Your task to perform on an android device: Go to display settings Image 0: 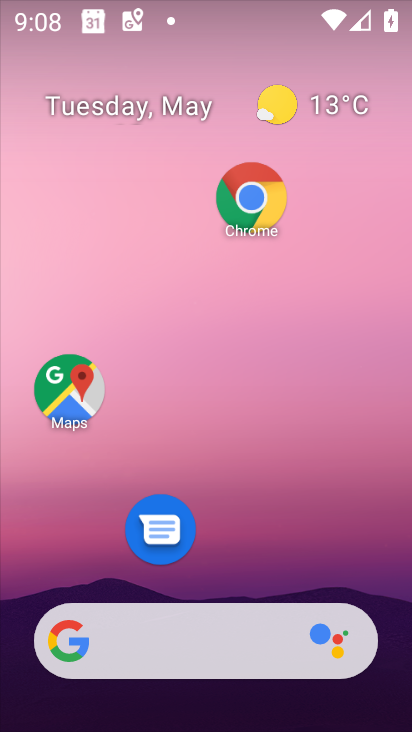
Step 0: drag from (355, 551) to (332, 213)
Your task to perform on an android device: Go to display settings Image 1: 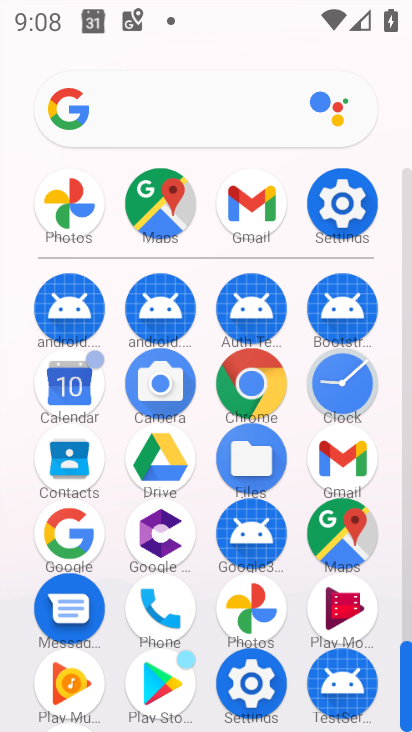
Step 1: click (325, 224)
Your task to perform on an android device: Go to display settings Image 2: 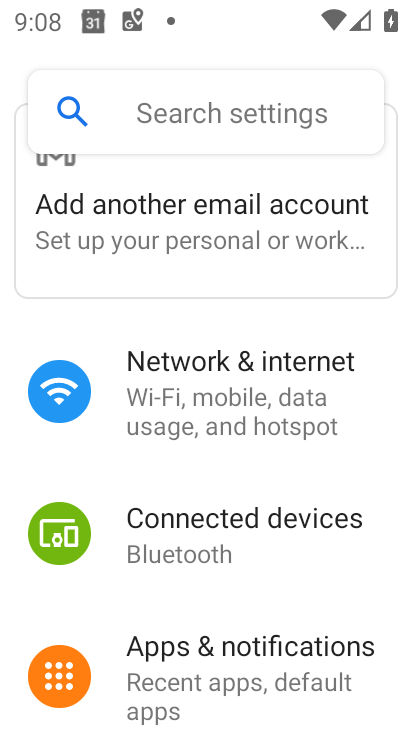
Step 2: drag from (196, 595) to (230, 215)
Your task to perform on an android device: Go to display settings Image 3: 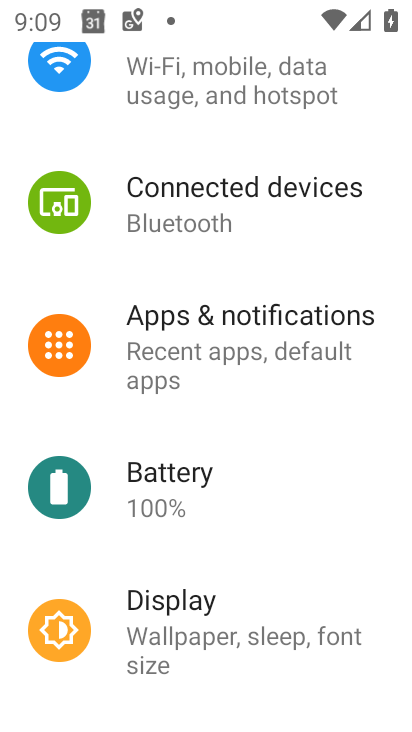
Step 3: drag from (230, 577) to (254, 145)
Your task to perform on an android device: Go to display settings Image 4: 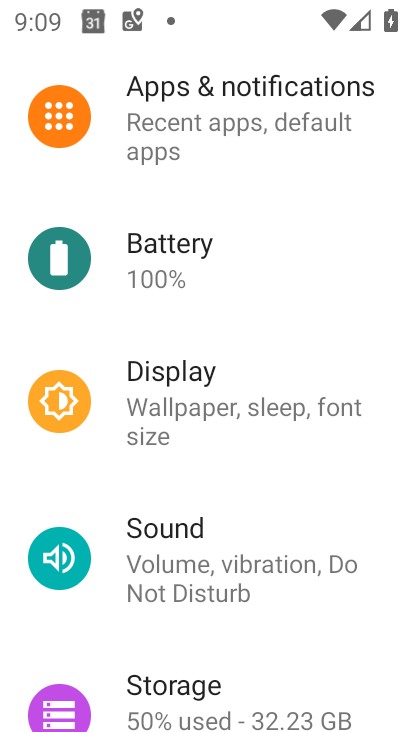
Step 4: click (258, 391)
Your task to perform on an android device: Go to display settings Image 5: 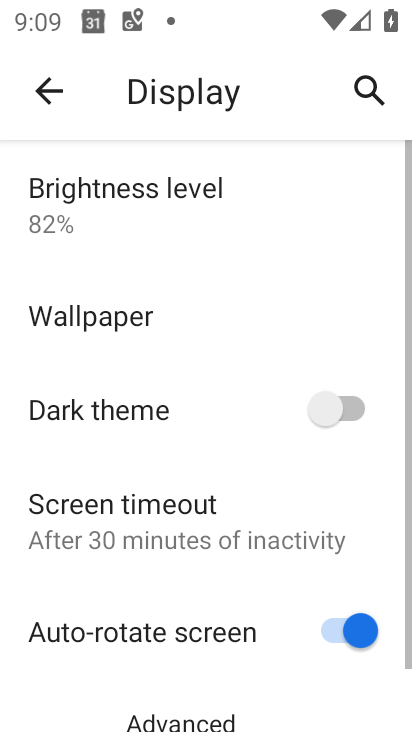
Step 5: task complete